Your task to perform on an android device: Add "usb-b" to the cart on walmart.com, then select checkout. Image 0: 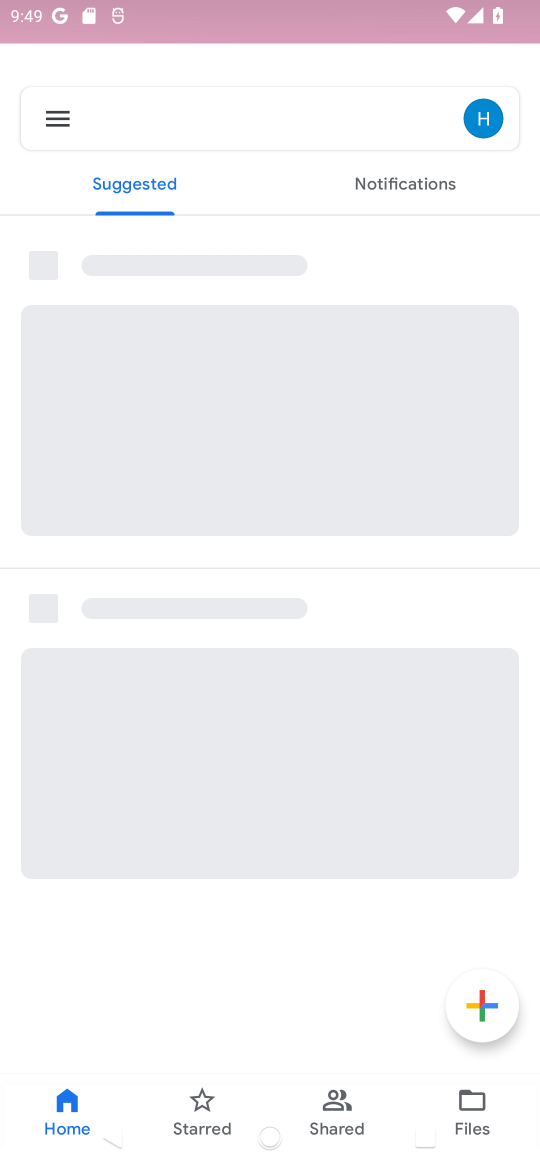
Step 0: press home button
Your task to perform on an android device: Add "usb-b" to the cart on walmart.com, then select checkout. Image 1: 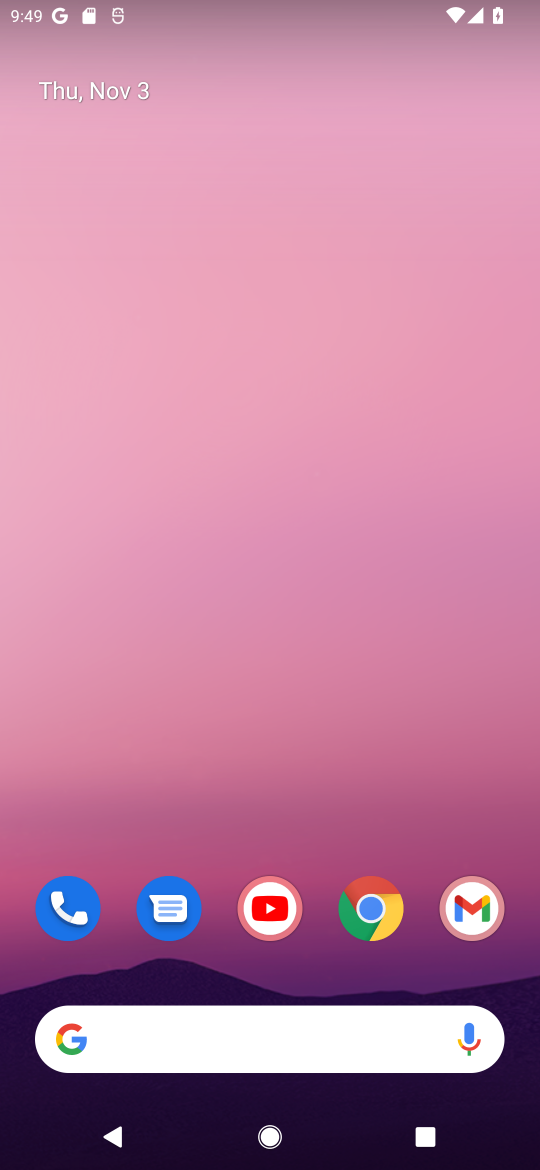
Step 1: click (362, 917)
Your task to perform on an android device: Add "usb-b" to the cart on walmart.com, then select checkout. Image 2: 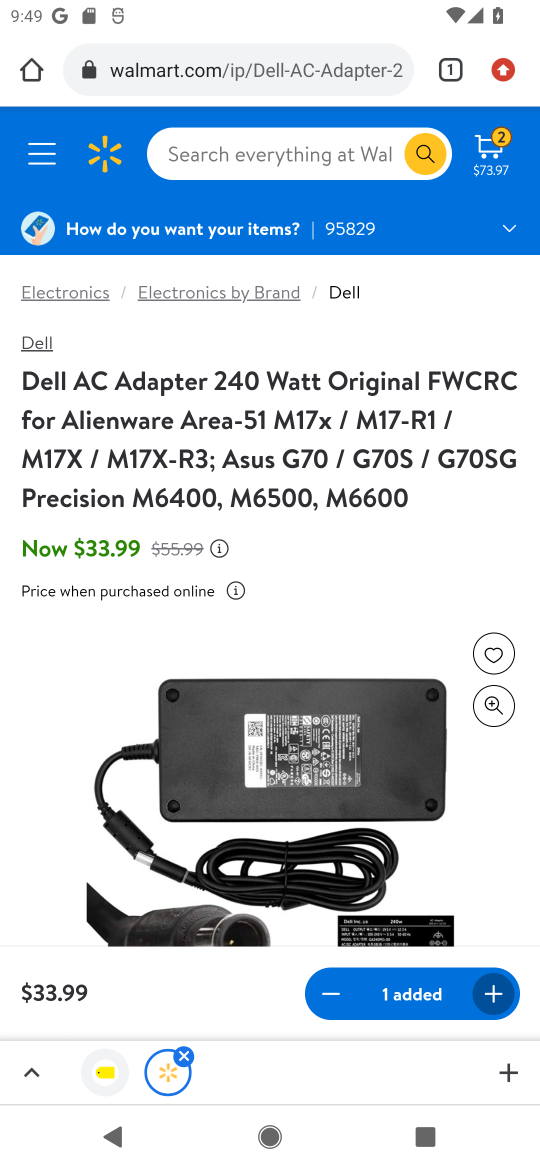
Step 2: click (326, 148)
Your task to perform on an android device: Add "usb-b" to the cart on walmart.com, then select checkout. Image 3: 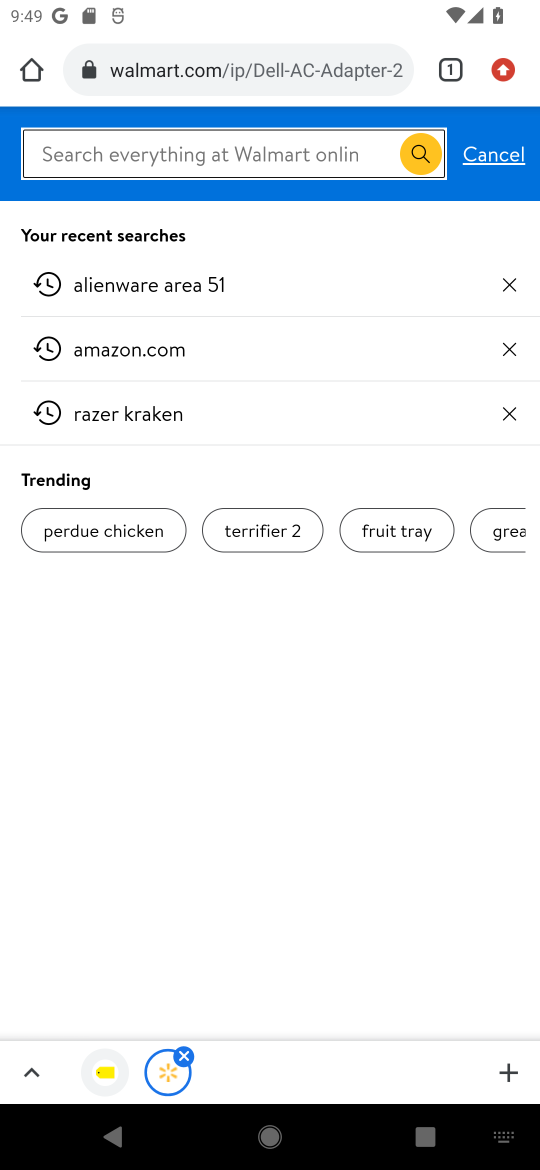
Step 3: type "usb-b"
Your task to perform on an android device: Add "usb-b" to the cart on walmart.com, then select checkout. Image 4: 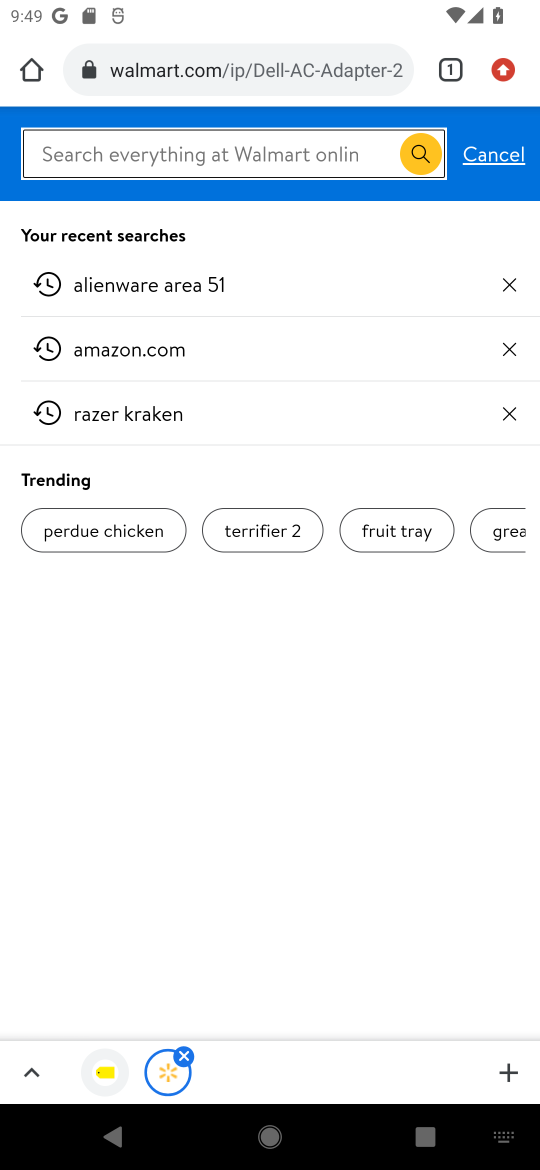
Step 4: press enter
Your task to perform on an android device: Add "usb-b" to the cart on walmart.com, then select checkout. Image 5: 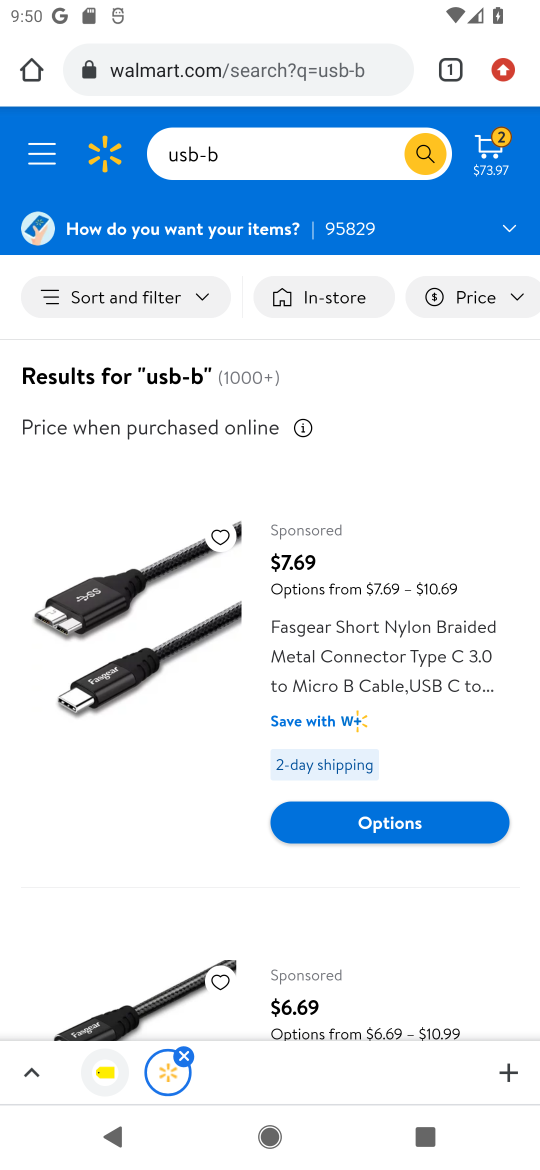
Step 5: drag from (175, 750) to (182, 405)
Your task to perform on an android device: Add "usb-b" to the cart on walmart.com, then select checkout. Image 6: 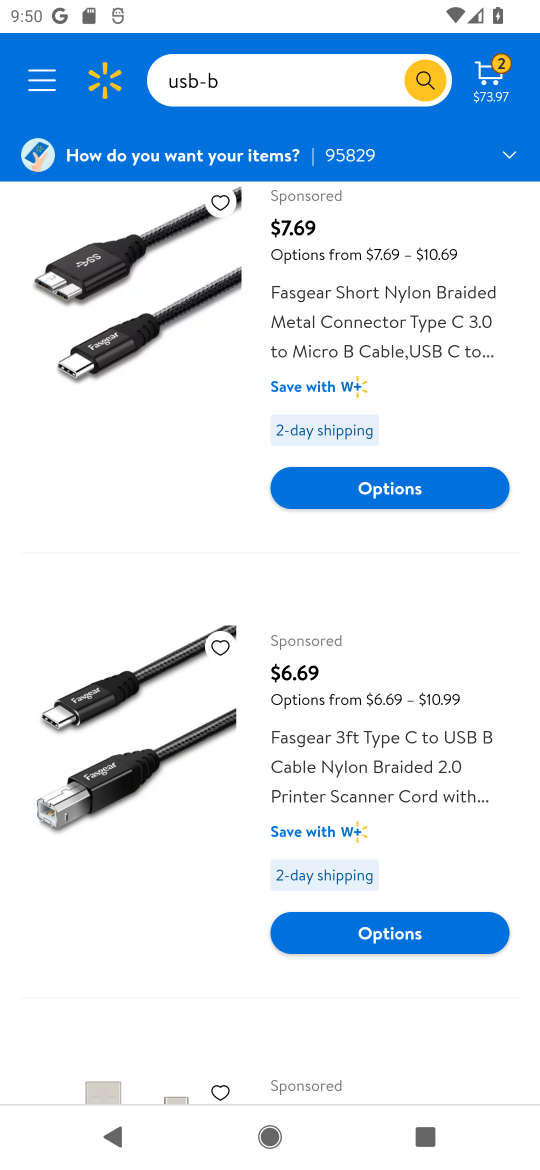
Step 6: click (130, 721)
Your task to perform on an android device: Add "usb-b" to the cart on walmart.com, then select checkout. Image 7: 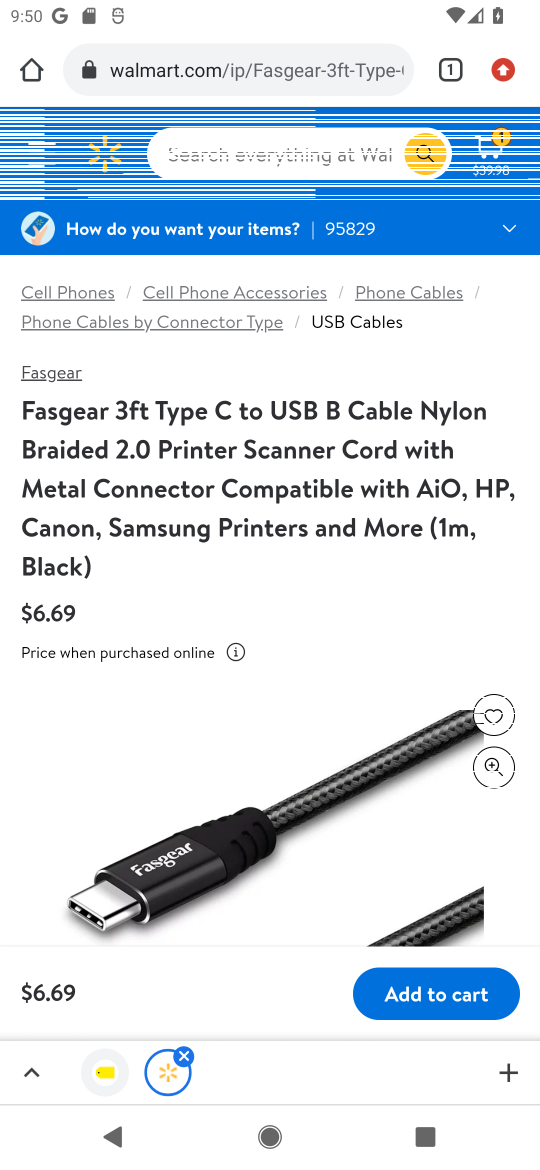
Step 7: click (442, 984)
Your task to perform on an android device: Add "usb-b" to the cart on walmart.com, then select checkout. Image 8: 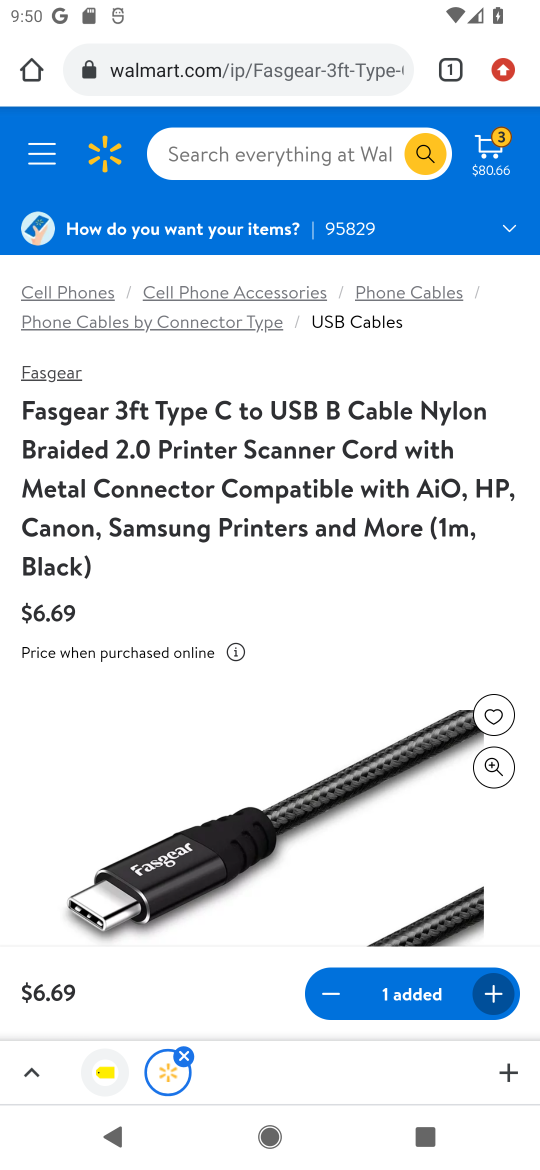
Step 8: task complete